Your task to perform on an android device: turn vacation reply on in the gmail app Image 0: 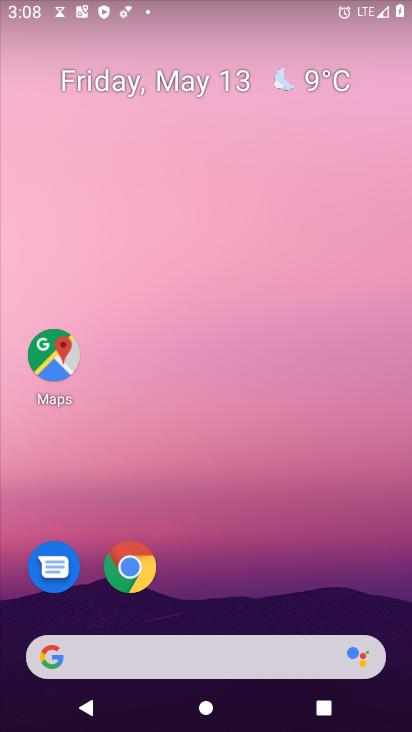
Step 0: drag from (370, 614) to (410, 43)
Your task to perform on an android device: turn vacation reply on in the gmail app Image 1: 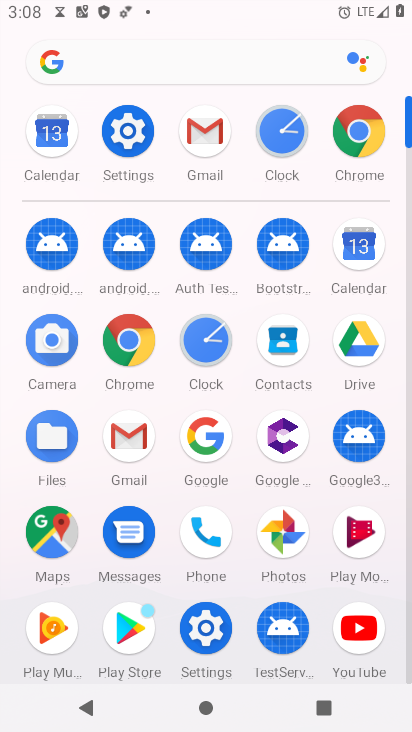
Step 1: click (212, 145)
Your task to perform on an android device: turn vacation reply on in the gmail app Image 2: 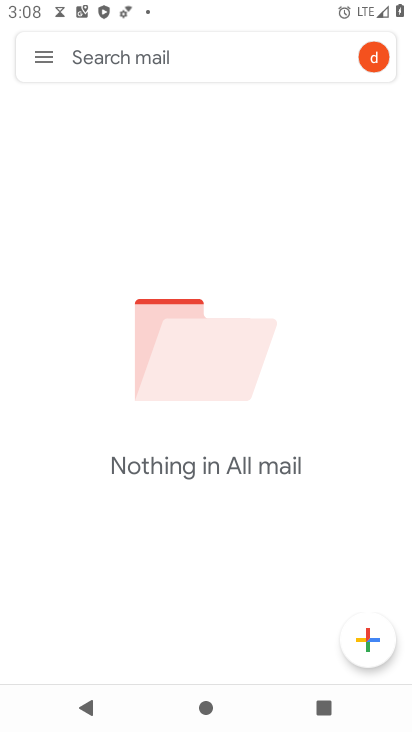
Step 2: click (36, 57)
Your task to perform on an android device: turn vacation reply on in the gmail app Image 3: 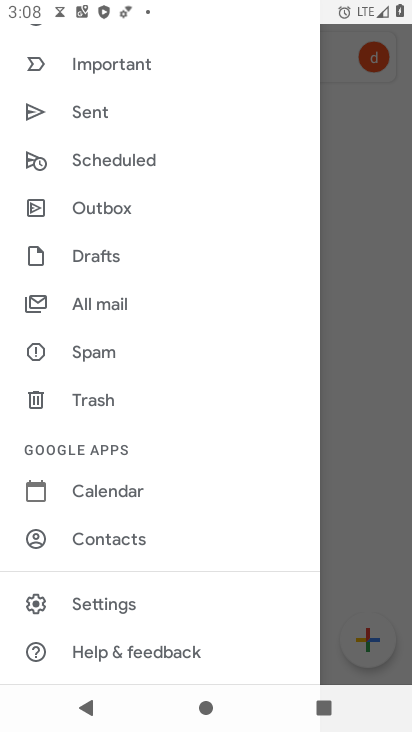
Step 3: click (98, 602)
Your task to perform on an android device: turn vacation reply on in the gmail app Image 4: 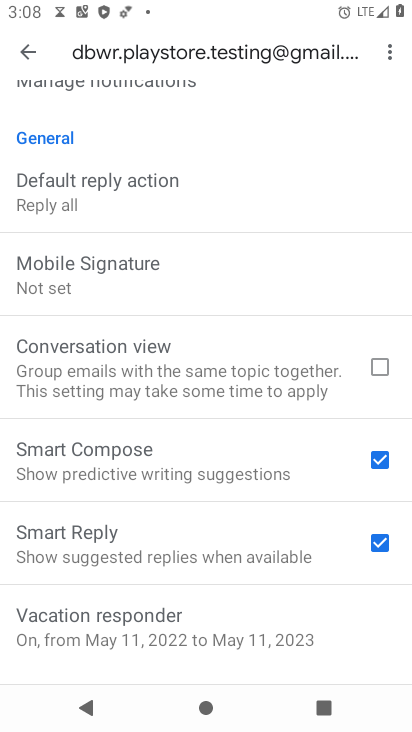
Step 4: click (125, 625)
Your task to perform on an android device: turn vacation reply on in the gmail app Image 5: 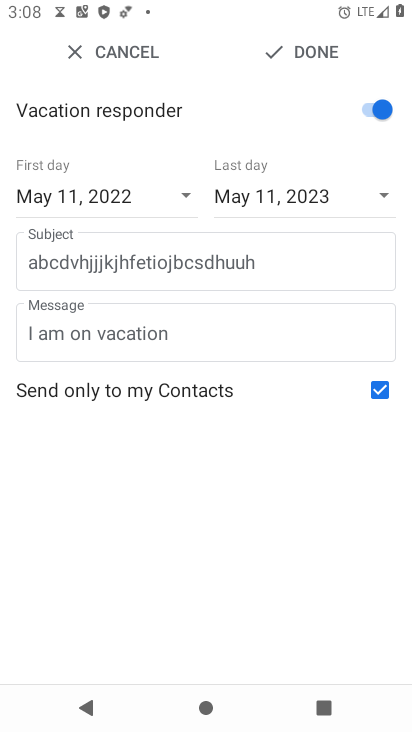
Step 5: click (323, 54)
Your task to perform on an android device: turn vacation reply on in the gmail app Image 6: 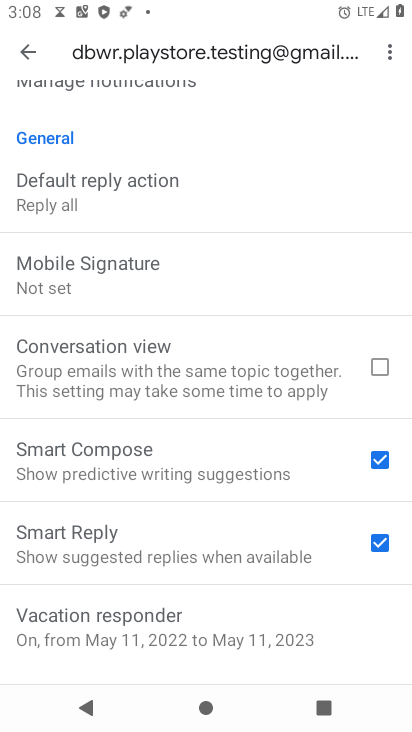
Step 6: task complete